Your task to perform on an android device: Search for pizza restaurants on Maps Image 0: 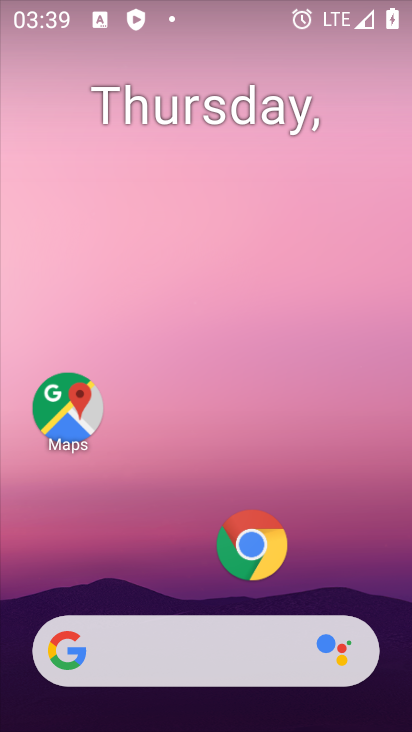
Step 0: drag from (310, 573) to (291, 84)
Your task to perform on an android device: Search for pizza restaurants on Maps Image 1: 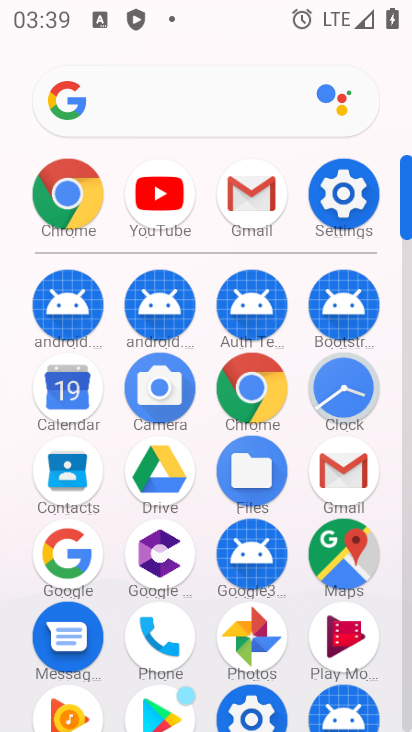
Step 1: click (328, 550)
Your task to perform on an android device: Search for pizza restaurants on Maps Image 2: 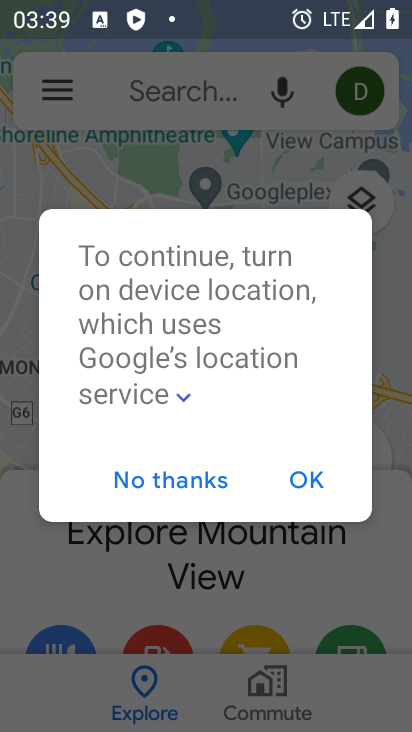
Step 2: click (207, 466)
Your task to perform on an android device: Search for pizza restaurants on Maps Image 3: 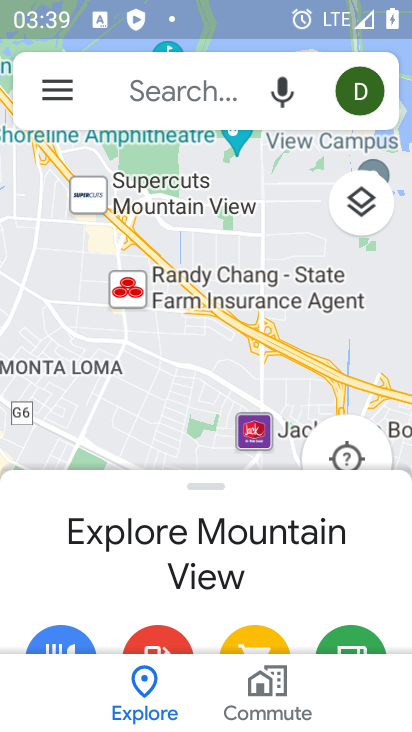
Step 3: click (192, 106)
Your task to perform on an android device: Search for pizza restaurants on Maps Image 4: 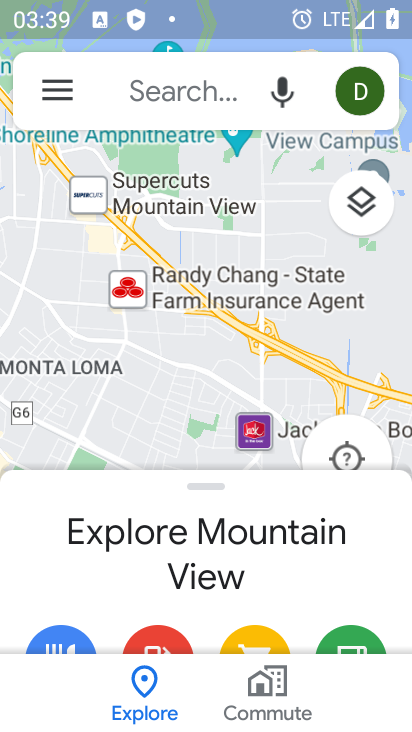
Step 4: click (192, 106)
Your task to perform on an android device: Search for pizza restaurants on Maps Image 5: 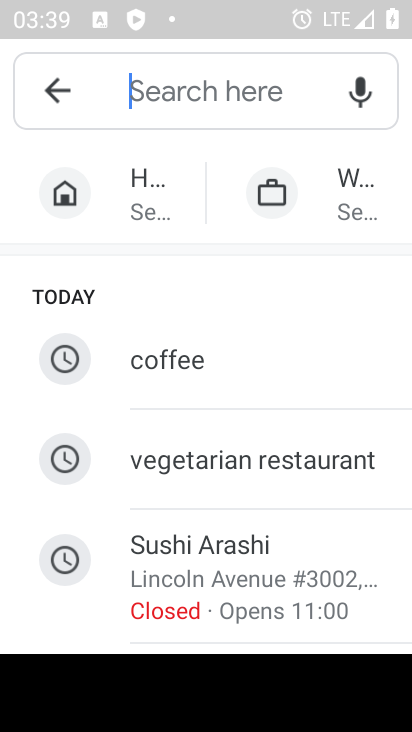
Step 5: drag from (316, 544) to (378, 187)
Your task to perform on an android device: Search for pizza restaurants on Maps Image 6: 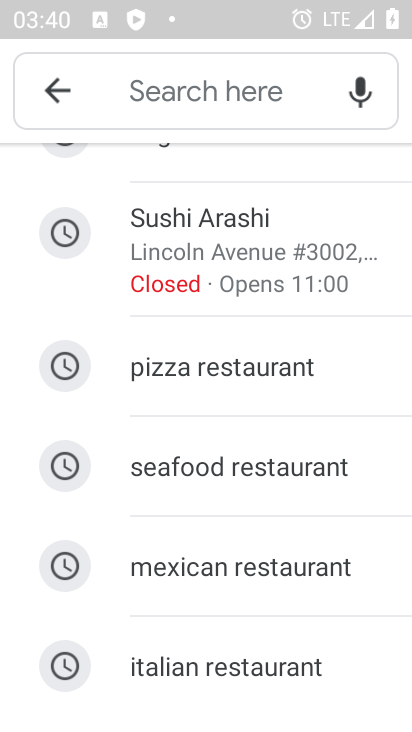
Step 6: click (286, 382)
Your task to perform on an android device: Search for pizza restaurants on Maps Image 7: 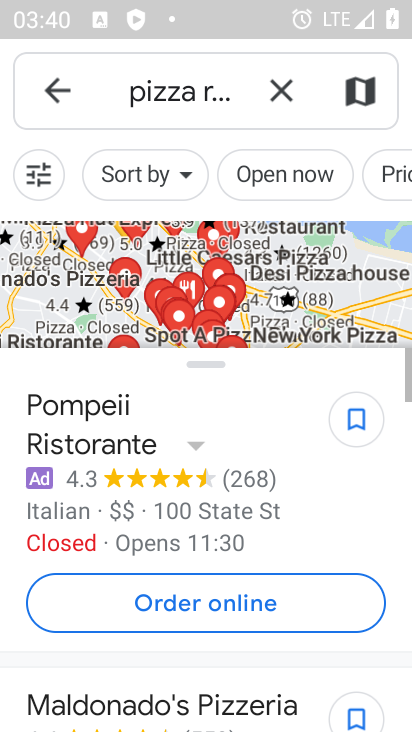
Step 7: task complete